Your task to perform on an android device: open chrome and create a bookmark for the current page Image 0: 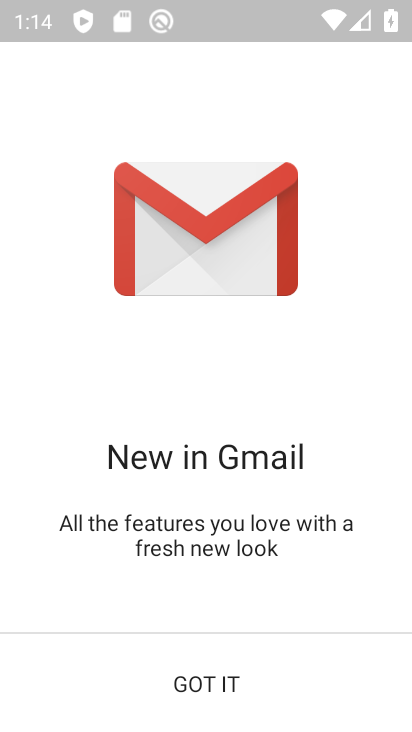
Step 0: press home button
Your task to perform on an android device: open chrome and create a bookmark for the current page Image 1: 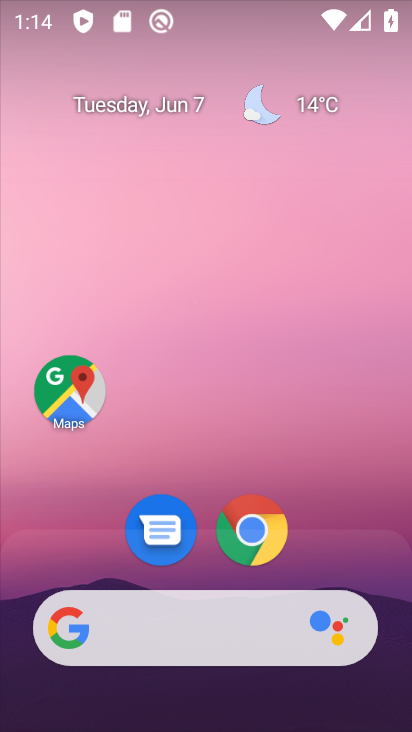
Step 1: click (268, 513)
Your task to perform on an android device: open chrome and create a bookmark for the current page Image 2: 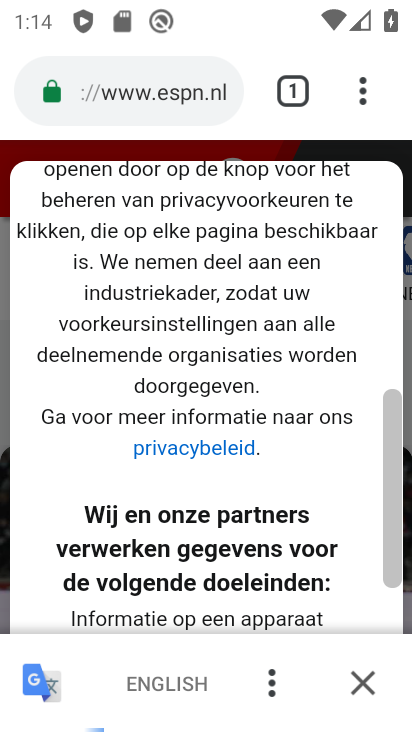
Step 2: click (363, 78)
Your task to perform on an android device: open chrome and create a bookmark for the current page Image 3: 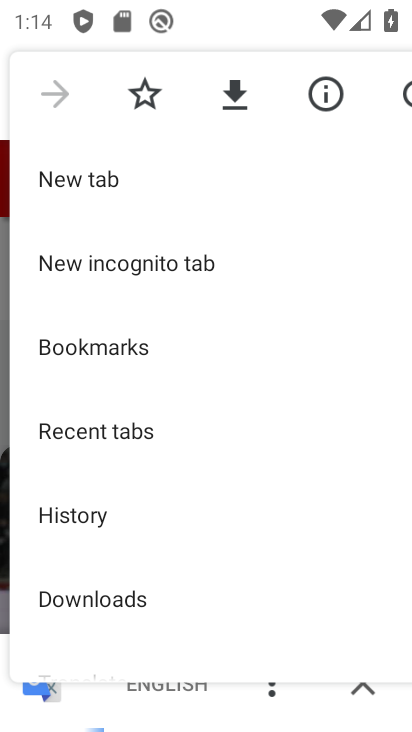
Step 3: click (147, 86)
Your task to perform on an android device: open chrome and create a bookmark for the current page Image 4: 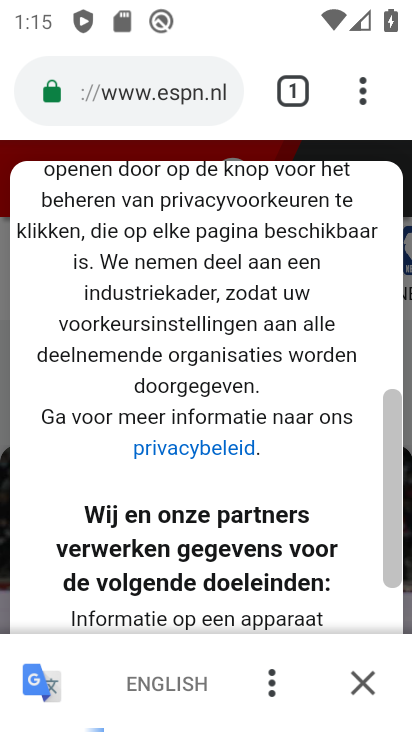
Step 4: task complete